Your task to perform on an android device: Open Google Maps Image 0: 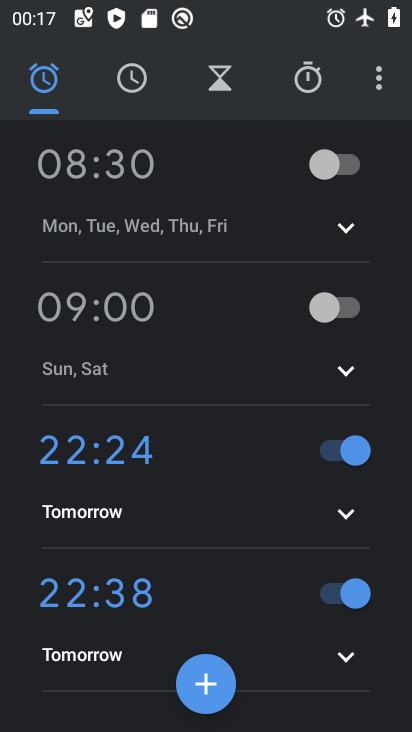
Step 0: press home button
Your task to perform on an android device: Open Google Maps Image 1: 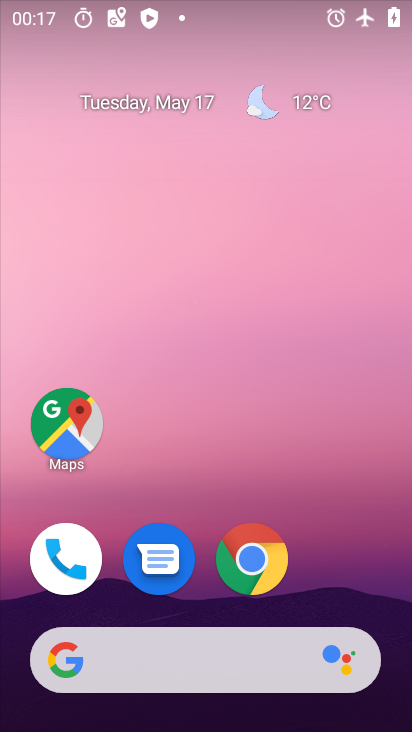
Step 1: click (86, 412)
Your task to perform on an android device: Open Google Maps Image 2: 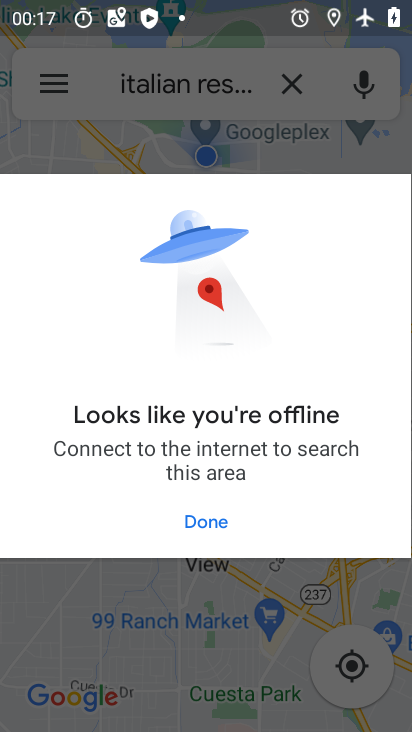
Step 2: click (206, 518)
Your task to perform on an android device: Open Google Maps Image 3: 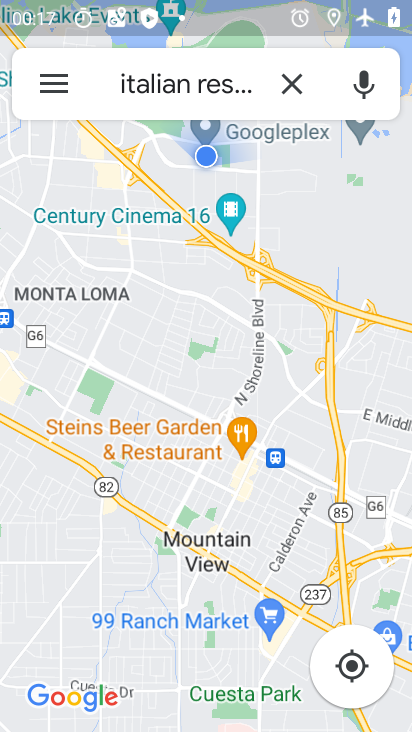
Step 3: task complete